Your task to perform on an android device: turn on improve location accuracy Image 0: 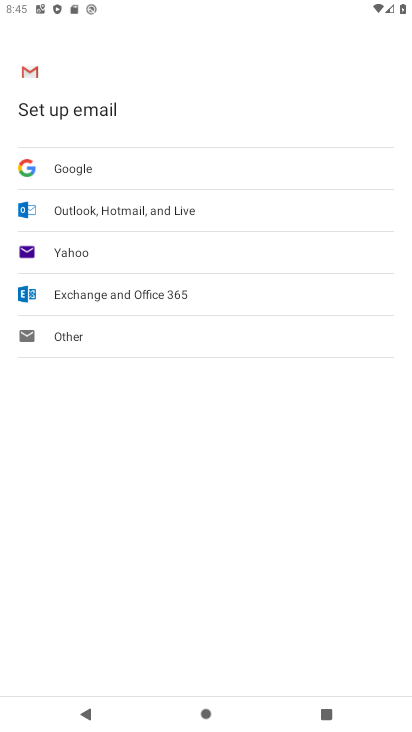
Step 0: press home button
Your task to perform on an android device: turn on improve location accuracy Image 1: 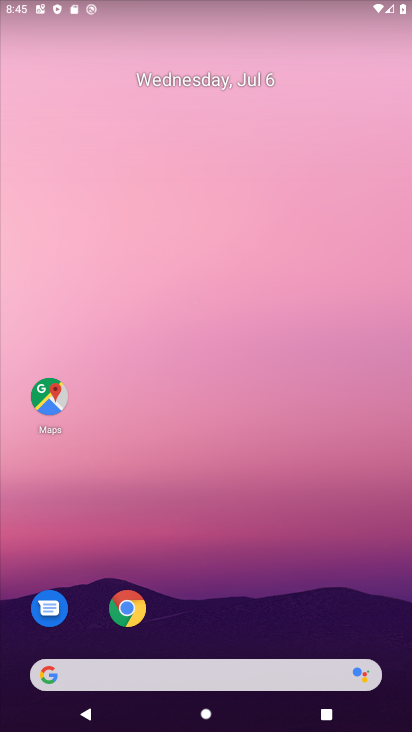
Step 1: drag from (171, 655) to (162, 238)
Your task to perform on an android device: turn on improve location accuracy Image 2: 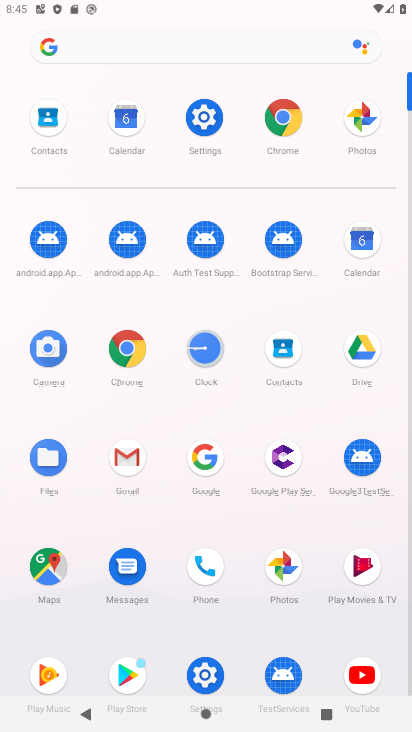
Step 2: click (206, 118)
Your task to perform on an android device: turn on improve location accuracy Image 3: 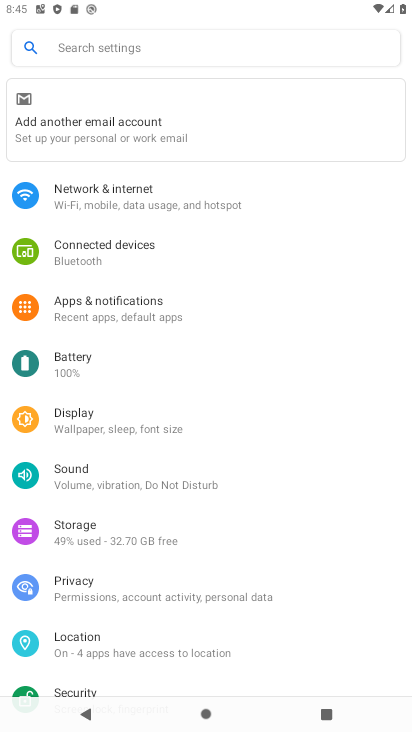
Step 3: drag from (94, 648) to (79, 324)
Your task to perform on an android device: turn on improve location accuracy Image 4: 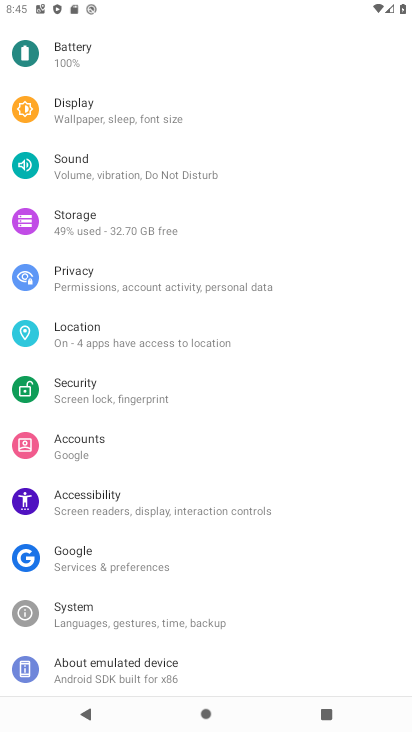
Step 4: click (80, 336)
Your task to perform on an android device: turn on improve location accuracy Image 5: 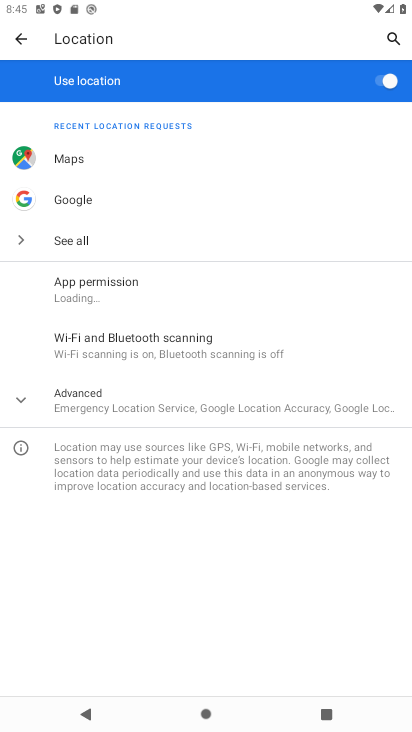
Step 5: click (93, 396)
Your task to perform on an android device: turn on improve location accuracy Image 6: 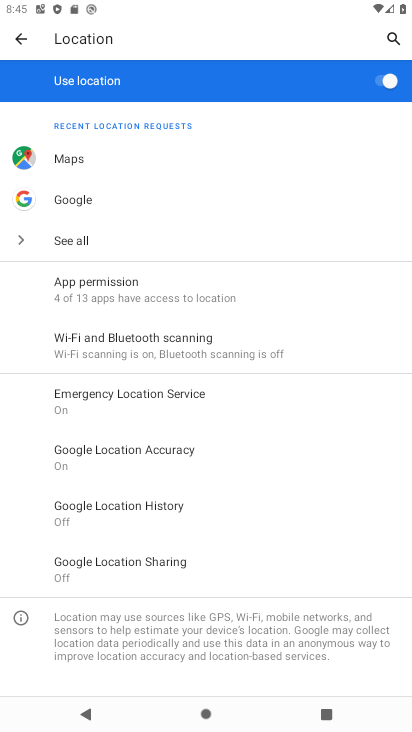
Step 6: click (125, 452)
Your task to perform on an android device: turn on improve location accuracy Image 7: 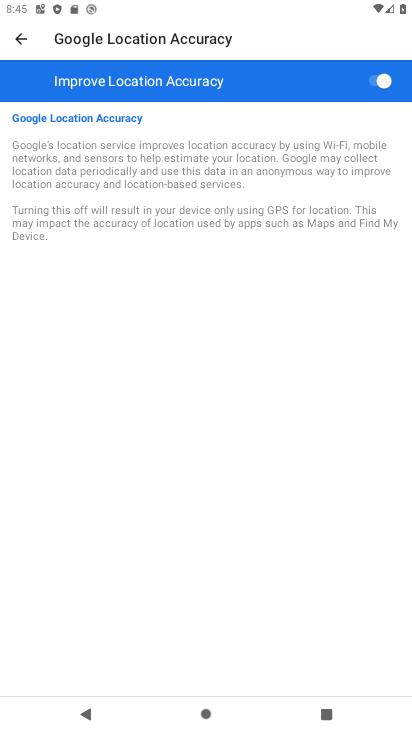
Step 7: task complete